Your task to perform on an android device: set default search engine in the chrome app Image 0: 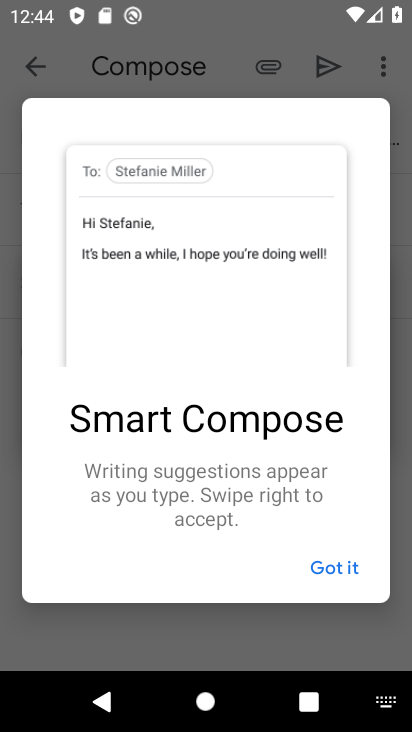
Step 0: task complete